Your task to perform on an android device: Open accessibility settings Image 0: 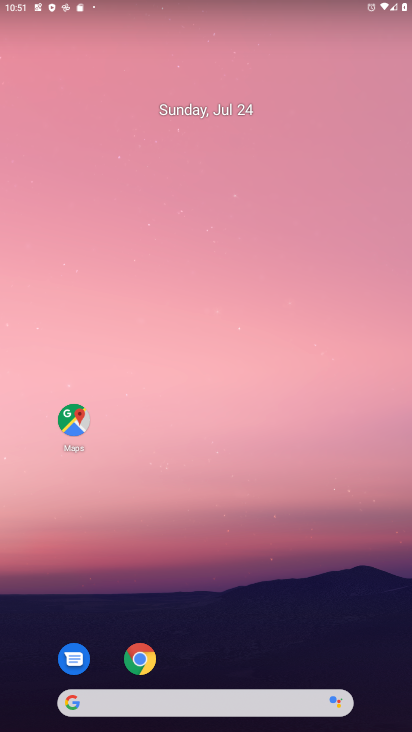
Step 0: drag from (381, 708) to (332, 171)
Your task to perform on an android device: Open accessibility settings Image 1: 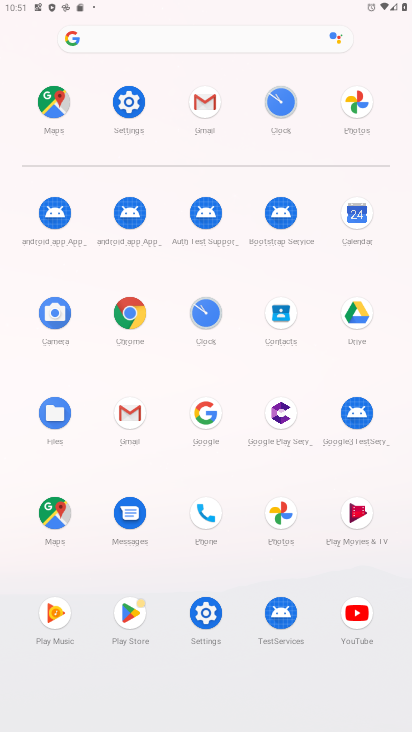
Step 1: click (206, 606)
Your task to perform on an android device: Open accessibility settings Image 2: 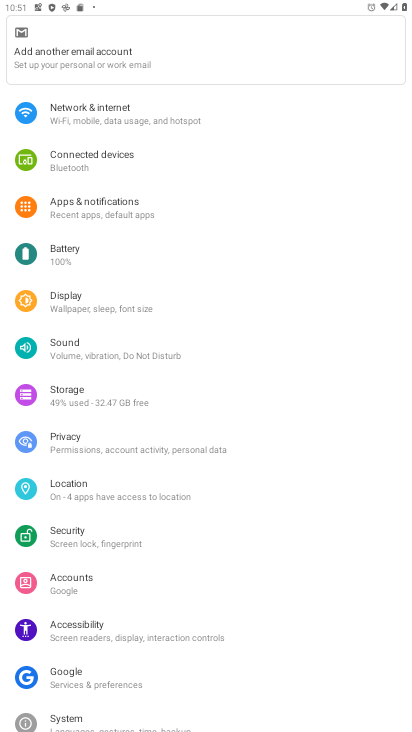
Step 2: click (89, 630)
Your task to perform on an android device: Open accessibility settings Image 3: 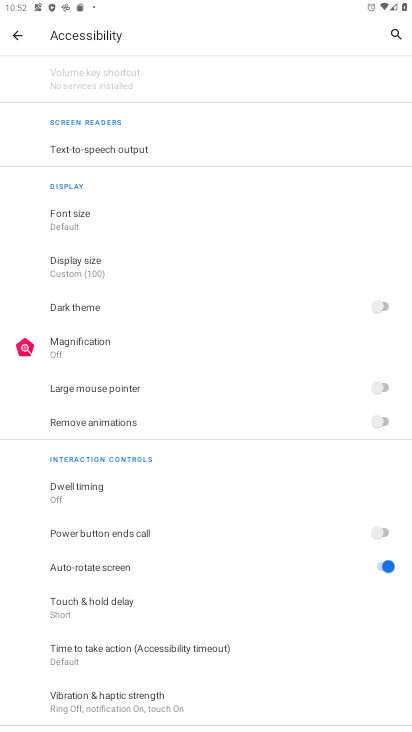
Step 3: task complete